Your task to perform on an android device: see tabs open on other devices in the chrome app Image 0: 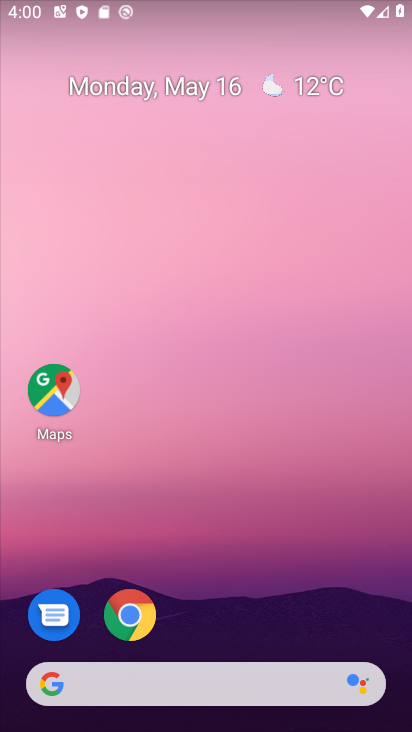
Step 0: click (138, 619)
Your task to perform on an android device: see tabs open on other devices in the chrome app Image 1: 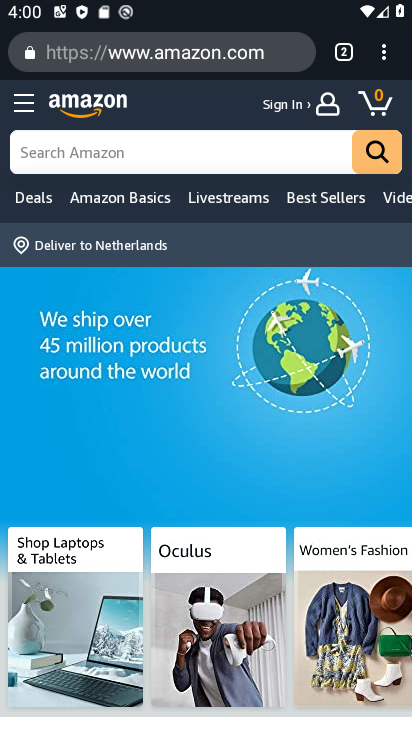
Step 1: click (386, 59)
Your task to perform on an android device: see tabs open on other devices in the chrome app Image 2: 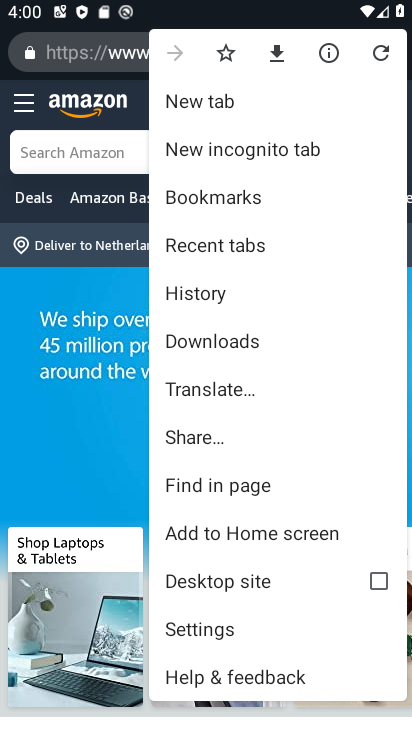
Step 2: click (211, 237)
Your task to perform on an android device: see tabs open on other devices in the chrome app Image 3: 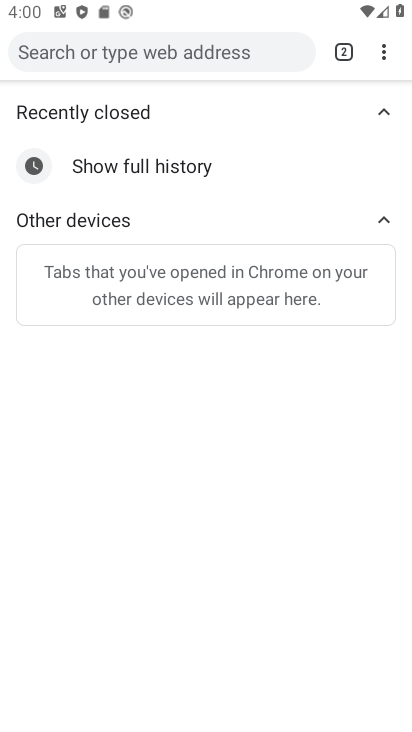
Step 3: task complete